Your task to perform on an android device: move an email to a new category in the gmail app Image 0: 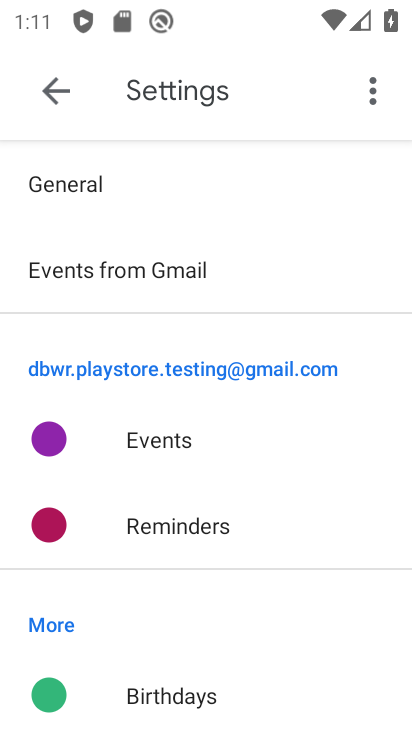
Step 0: press home button
Your task to perform on an android device: move an email to a new category in the gmail app Image 1: 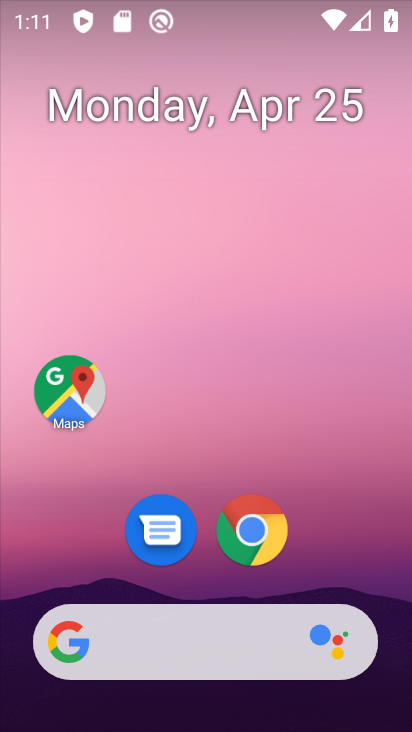
Step 1: drag from (367, 550) to (366, 173)
Your task to perform on an android device: move an email to a new category in the gmail app Image 2: 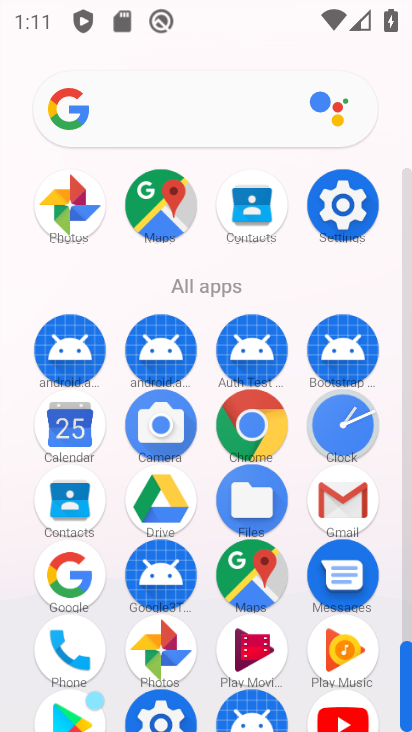
Step 2: click (345, 497)
Your task to perform on an android device: move an email to a new category in the gmail app Image 3: 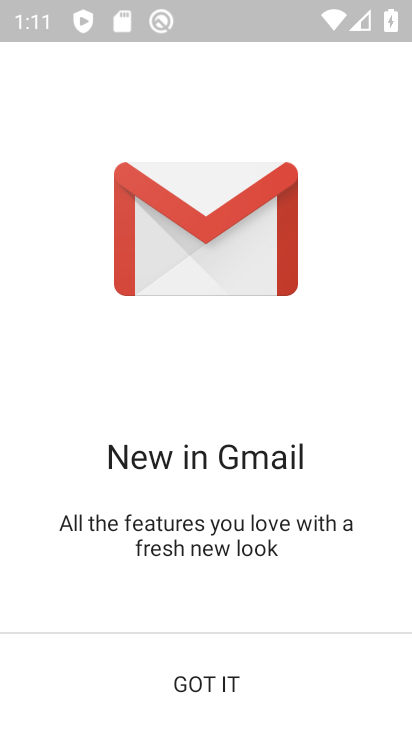
Step 3: click (192, 690)
Your task to perform on an android device: move an email to a new category in the gmail app Image 4: 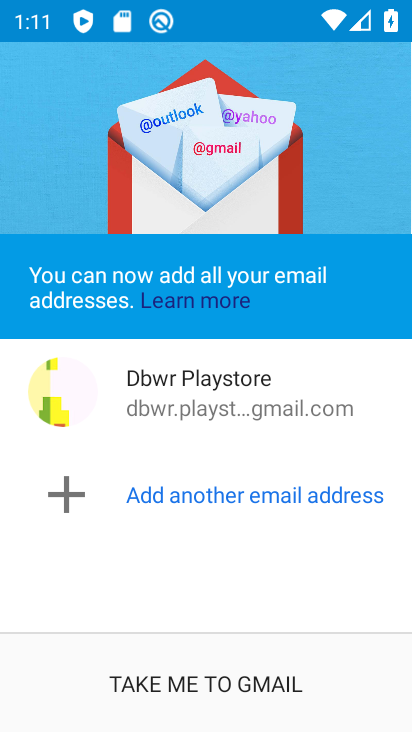
Step 4: click (265, 681)
Your task to perform on an android device: move an email to a new category in the gmail app Image 5: 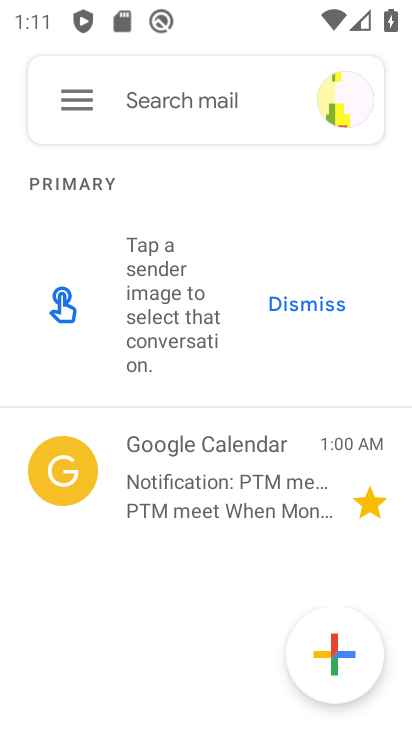
Step 5: click (268, 440)
Your task to perform on an android device: move an email to a new category in the gmail app Image 6: 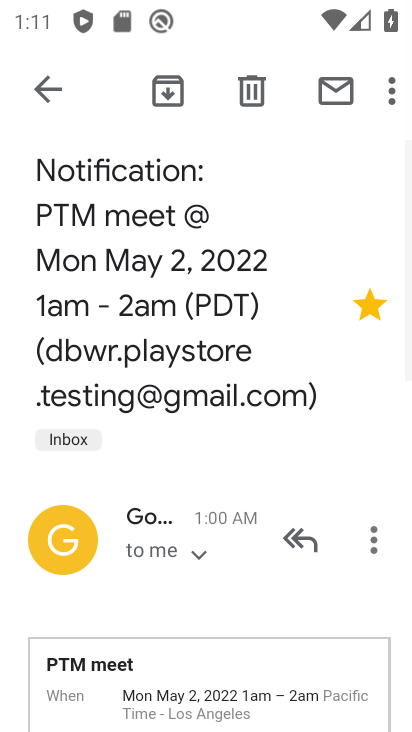
Step 6: click (398, 93)
Your task to perform on an android device: move an email to a new category in the gmail app Image 7: 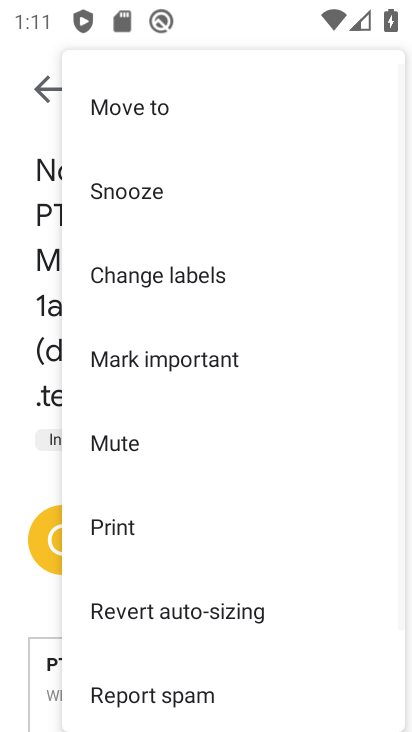
Step 7: click (181, 102)
Your task to perform on an android device: move an email to a new category in the gmail app Image 8: 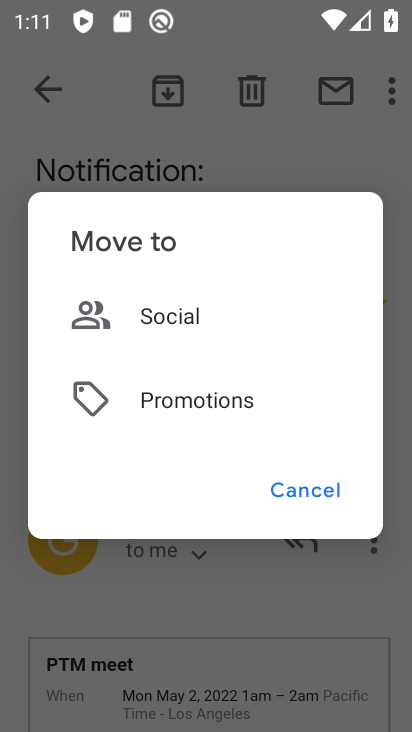
Step 8: click (167, 311)
Your task to perform on an android device: move an email to a new category in the gmail app Image 9: 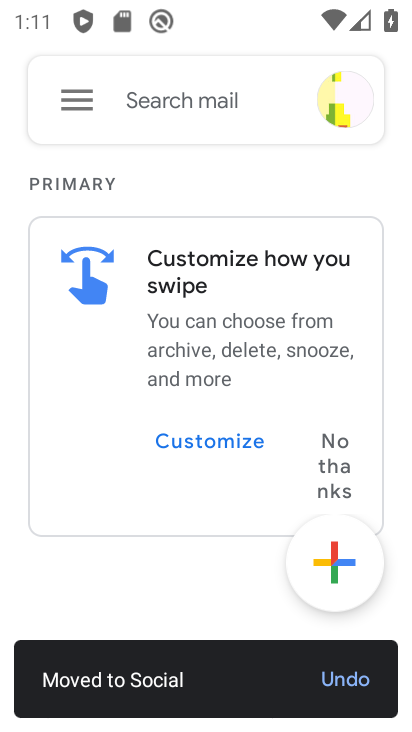
Step 9: task complete